Your task to perform on an android device: delete a single message in the gmail app Image 0: 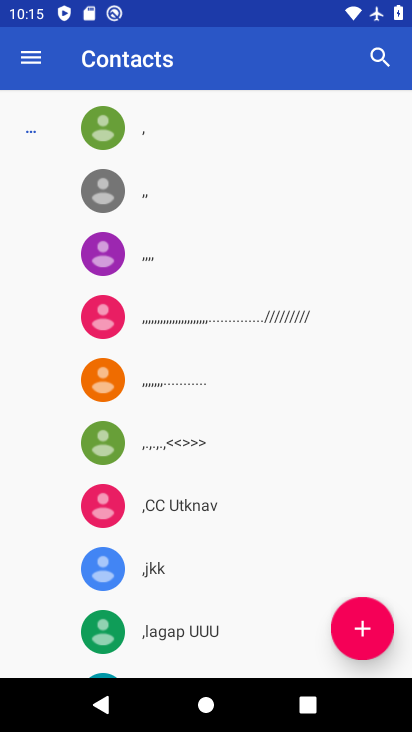
Step 0: press home button
Your task to perform on an android device: delete a single message in the gmail app Image 1: 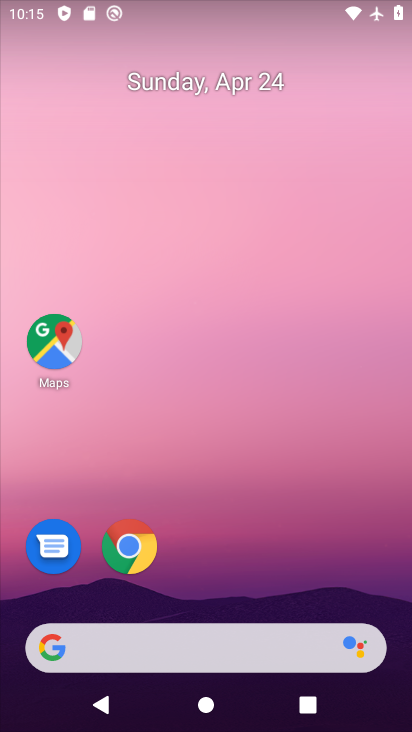
Step 1: drag from (367, 525) to (376, 1)
Your task to perform on an android device: delete a single message in the gmail app Image 2: 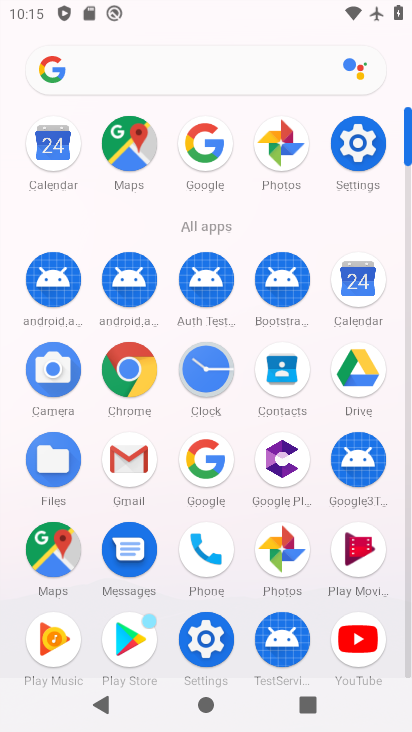
Step 2: click (122, 463)
Your task to perform on an android device: delete a single message in the gmail app Image 3: 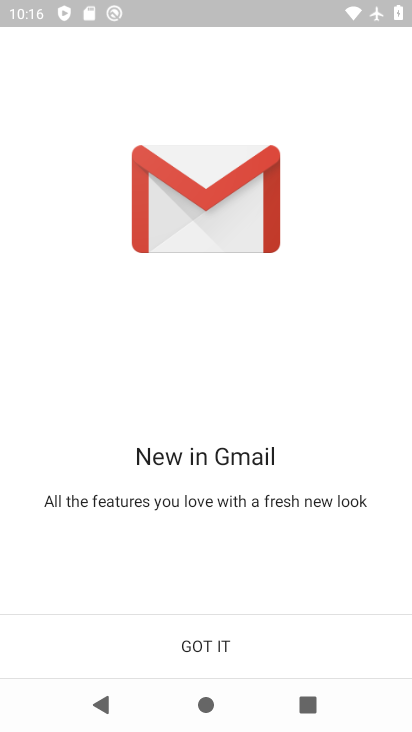
Step 3: click (202, 648)
Your task to perform on an android device: delete a single message in the gmail app Image 4: 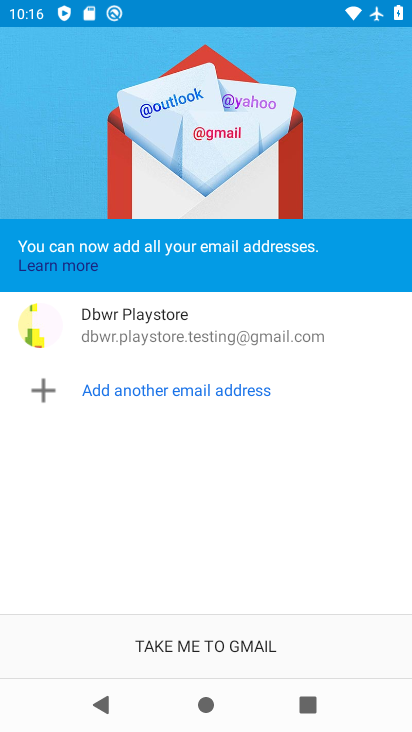
Step 4: click (195, 630)
Your task to perform on an android device: delete a single message in the gmail app Image 5: 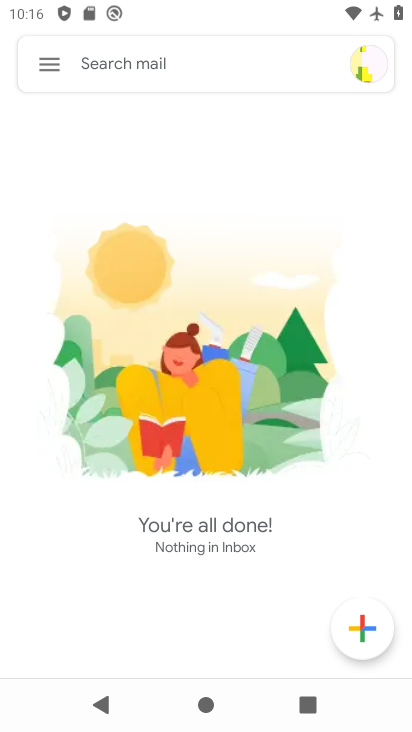
Step 5: click (48, 59)
Your task to perform on an android device: delete a single message in the gmail app Image 6: 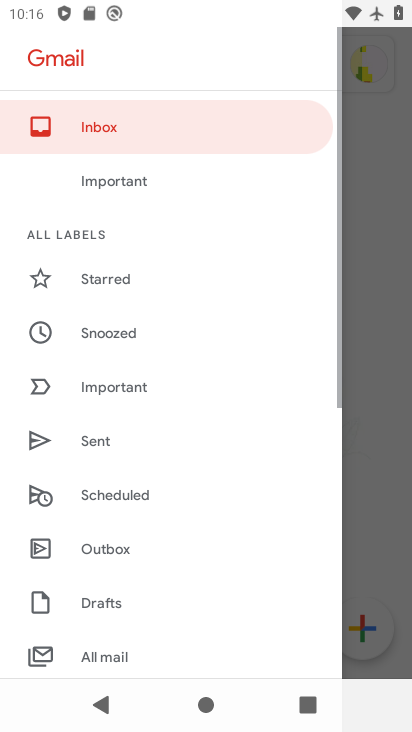
Step 6: drag from (208, 521) to (214, 170)
Your task to perform on an android device: delete a single message in the gmail app Image 7: 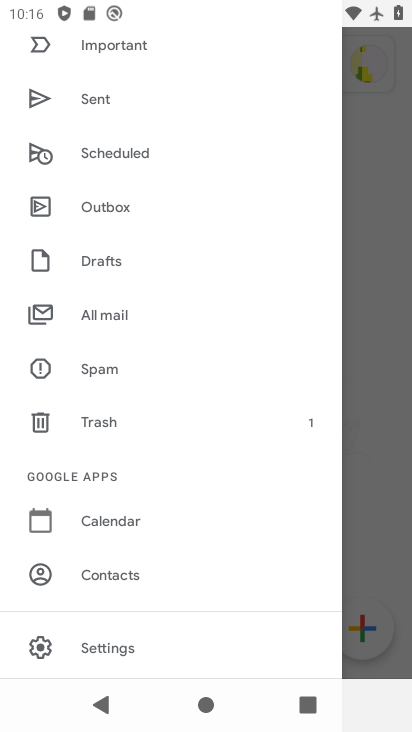
Step 7: click (114, 320)
Your task to perform on an android device: delete a single message in the gmail app Image 8: 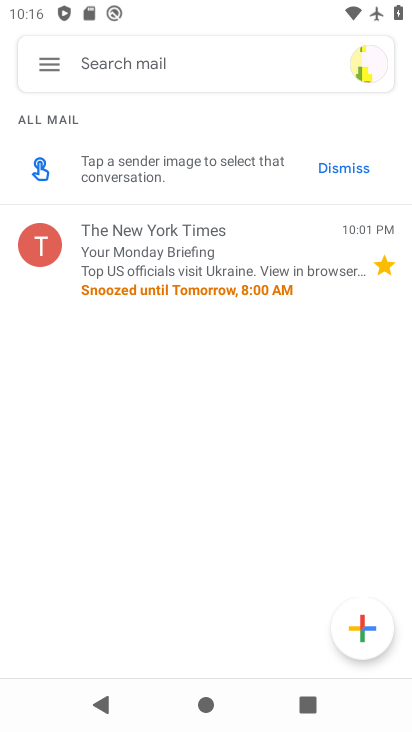
Step 8: click (174, 251)
Your task to perform on an android device: delete a single message in the gmail app Image 9: 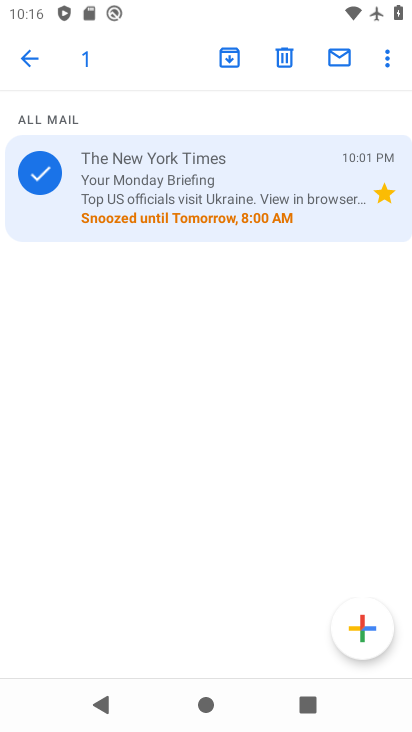
Step 9: click (282, 59)
Your task to perform on an android device: delete a single message in the gmail app Image 10: 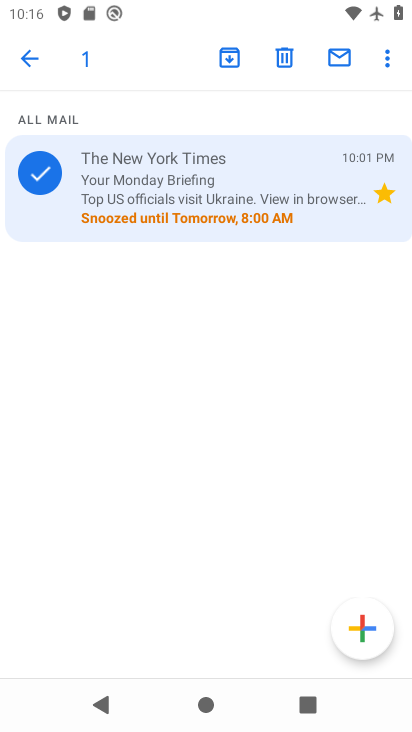
Step 10: click (282, 61)
Your task to perform on an android device: delete a single message in the gmail app Image 11: 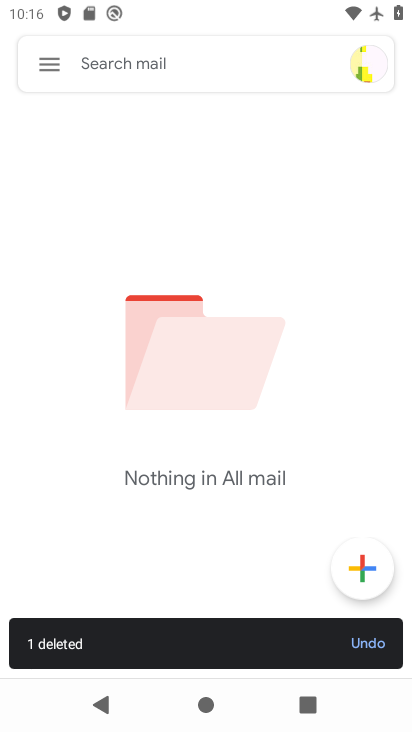
Step 11: task complete